Your task to perform on an android device: add a label to a message in the gmail app Image 0: 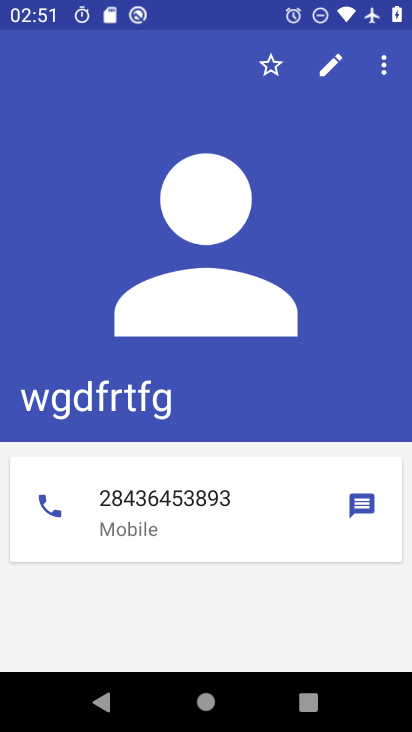
Step 0: press home button
Your task to perform on an android device: add a label to a message in the gmail app Image 1: 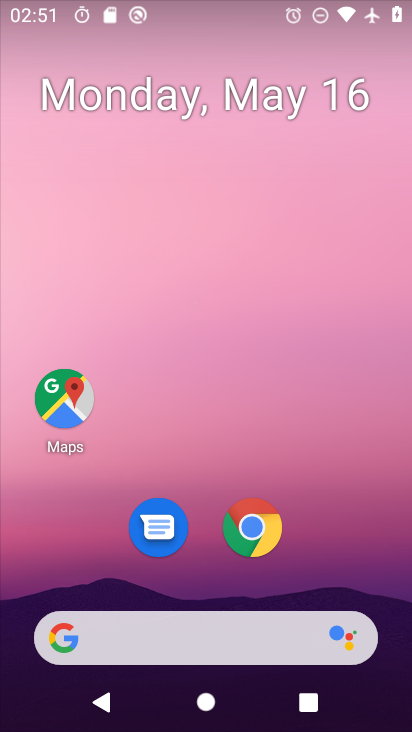
Step 1: drag from (115, 639) to (269, 243)
Your task to perform on an android device: add a label to a message in the gmail app Image 2: 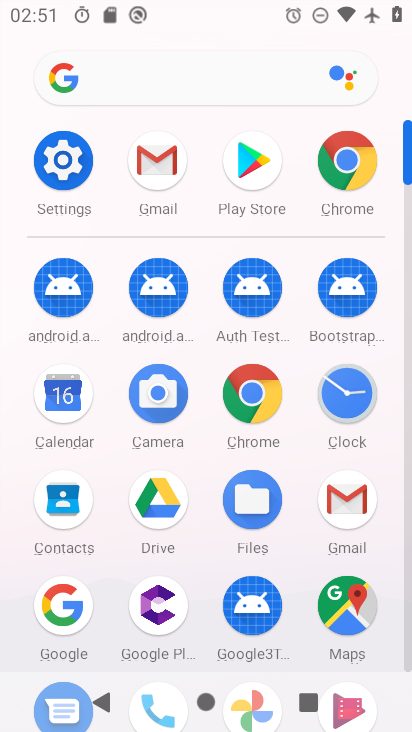
Step 2: click (164, 169)
Your task to perform on an android device: add a label to a message in the gmail app Image 3: 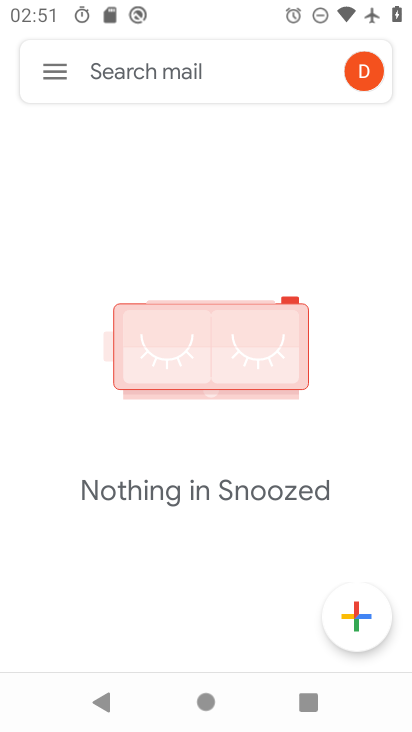
Step 3: click (51, 72)
Your task to perform on an android device: add a label to a message in the gmail app Image 4: 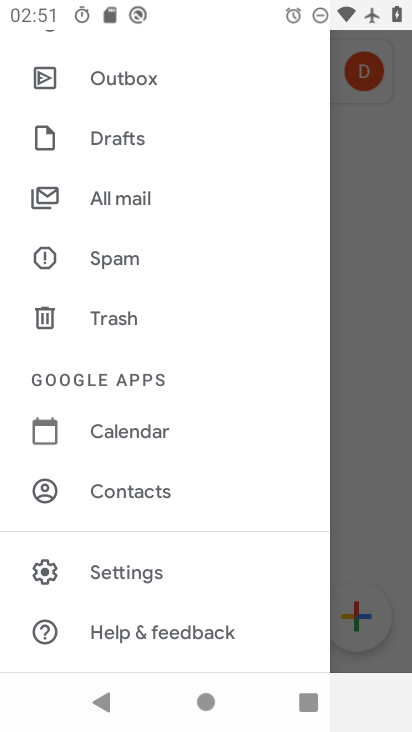
Step 4: click (125, 194)
Your task to perform on an android device: add a label to a message in the gmail app Image 5: 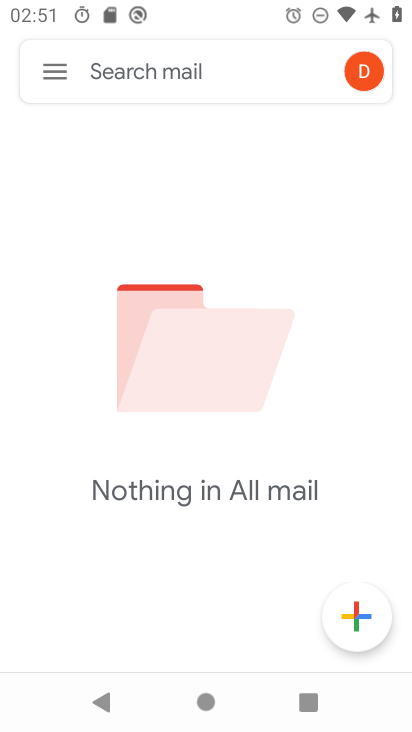
Step 5: task complete